Your task to perform on an android device: toggle priority inbox in the gmail app Image 0: 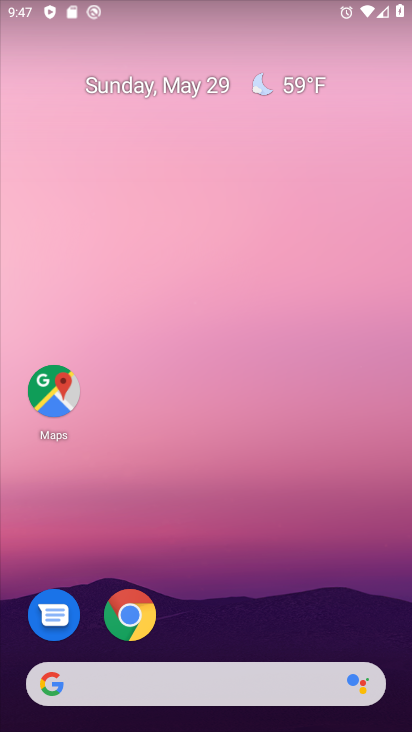
Step 0: drag from (213, 538) to (243, 188)
Your task to perform on an android device: toggle priority inbox in the gmail app Image 1: 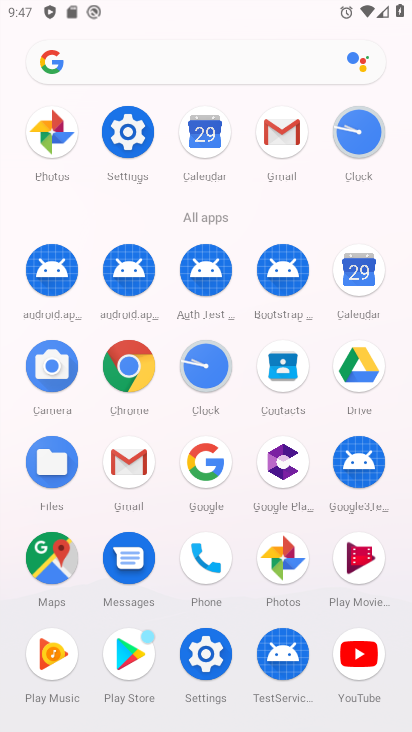
Step 1: click (282, 135)
Your task to perform on an android device: toggle priority inbox in the gmail app Image 2: 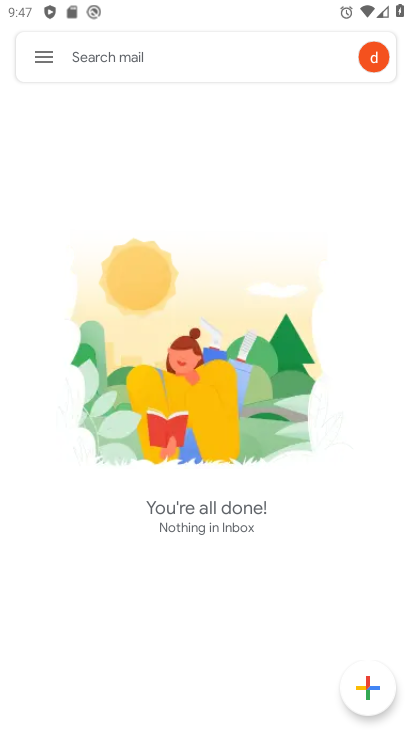
Step 2: click (46, 53)
Your task to perform on an android device: toggle priority inbox in the gmail app Image 3: 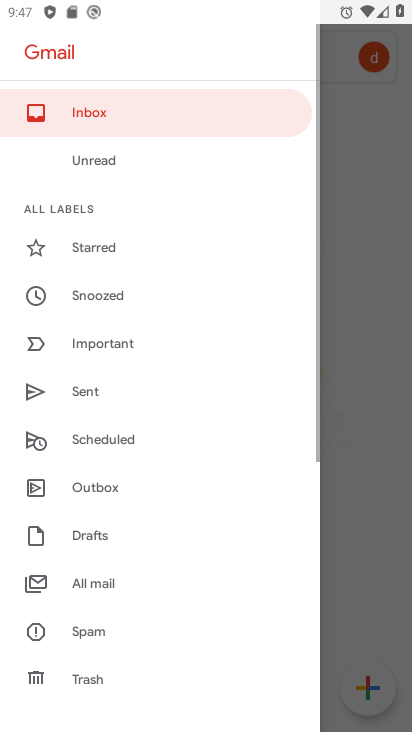
Step 3: drag from (143, 638) to (214, 236)
Your task to perform on an android device: toggle priority inbox in the gmail app Image 4: 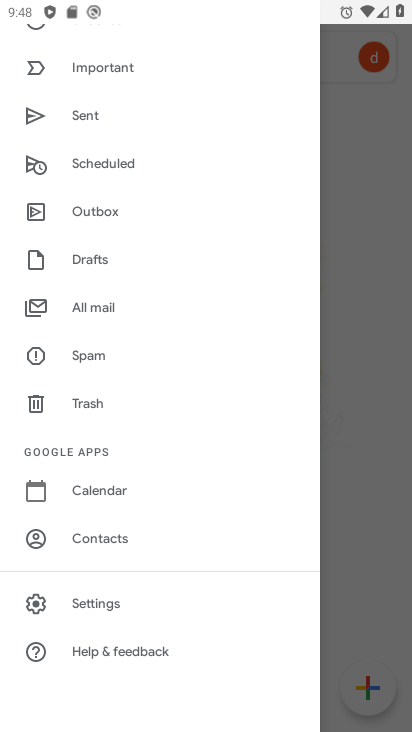
Step 4: click (82, 606)
Your task to perform on an android device: toggle priority inbox in the gmail app Image 5: 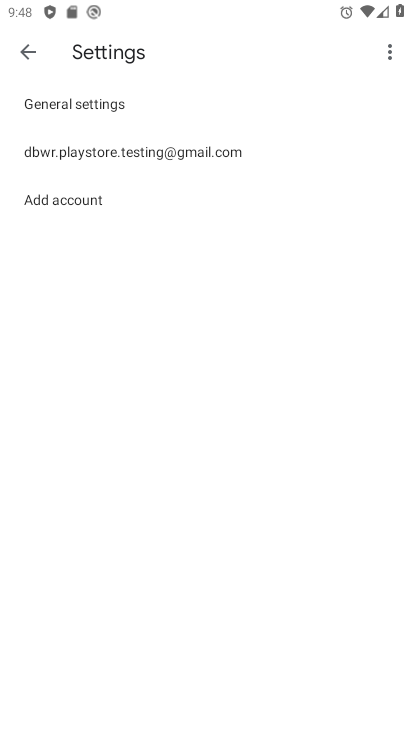
Step 5: click (142, 155)
Your task to perform on an android device: toggle priority inbox in the gmail app Image 6: 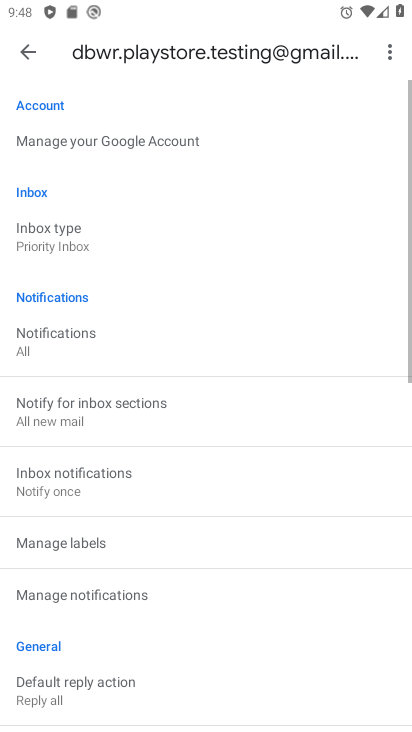
Step 6: click (108, 241)
Your task to perform on an android device: toggle priority inbox in the gmail app Image 7: 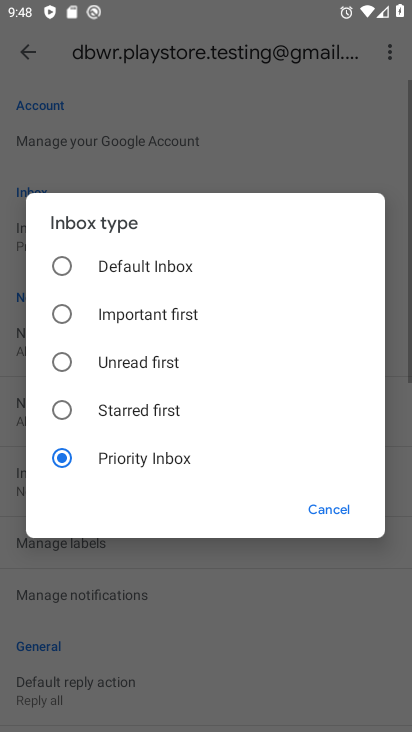
Step 7: click (68, 267)
Your task to perform on an android device: toggle priority inbox in the gmail app Image 8: 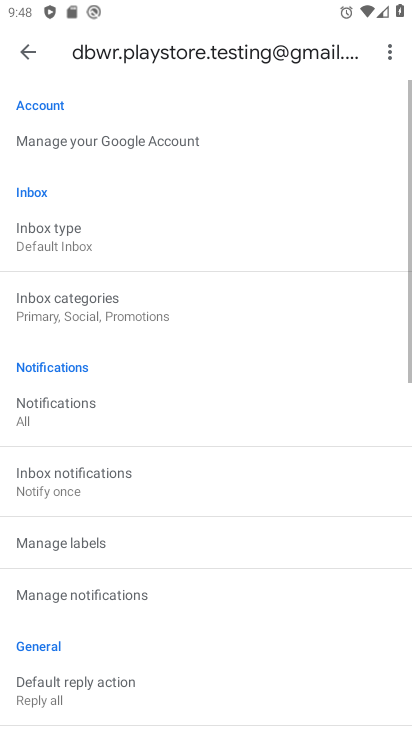
Step 8: task complete